Your task to perform on an android device: When is my next appointment? Image 0: 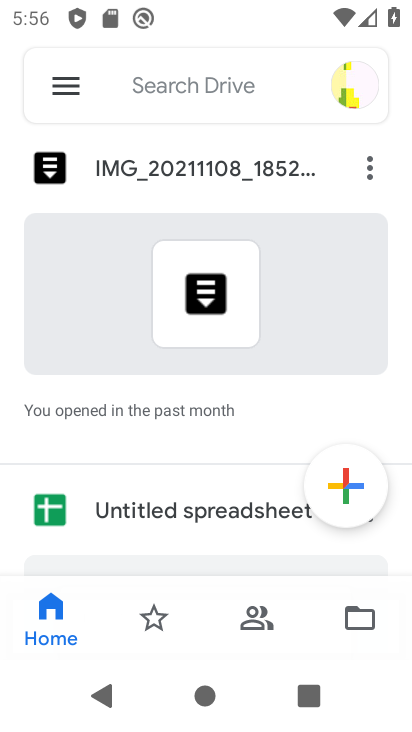
Step 0: press home button
Your task to perform on an android device: When is my next appointment? Image 1: 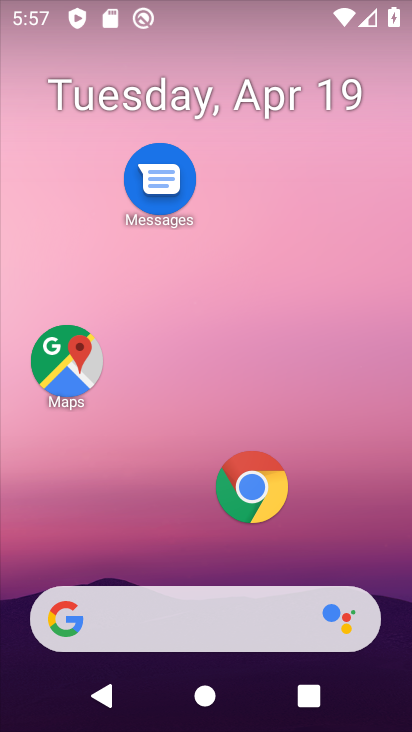
Step 1: drag from (150, 532) to (226, 7)
Your task to perform on an android device: When is my next appointment? Image 2: 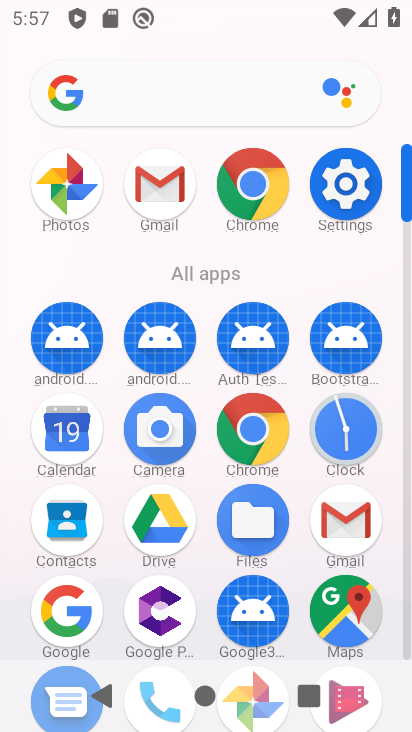
Step 2: click (66, 434)
Your task to perform on an android device: When is my next appointment? Image 3: 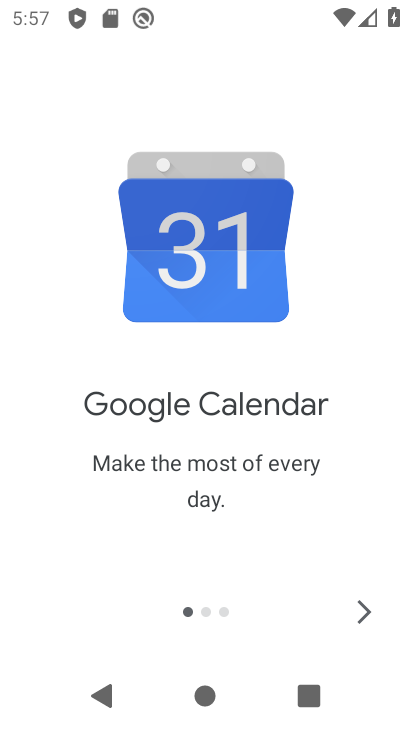
Step 3: click (369, 607)
Your task to perform on an android device: When is my next appointment? Image 4: 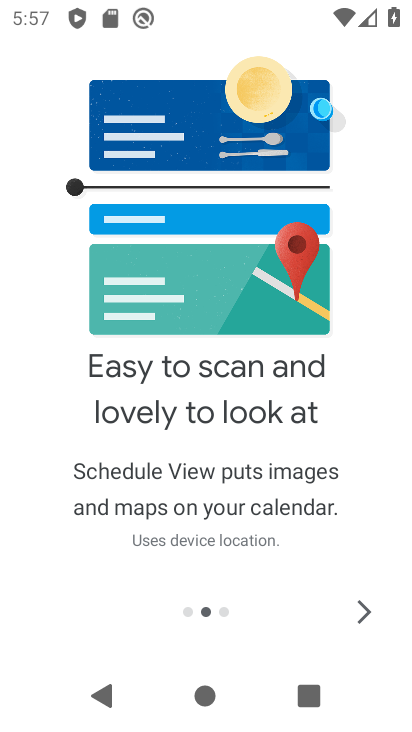
Step 4: click (367, 611)
Your task to perform on an android device: When is my next appointment? Image 5: 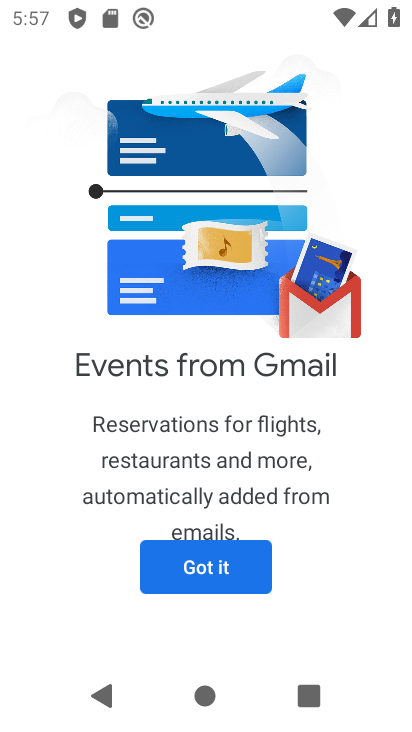
Step 5: click (207, 581)
Your task to perform on an android device: When is my next appointment? Image 6: 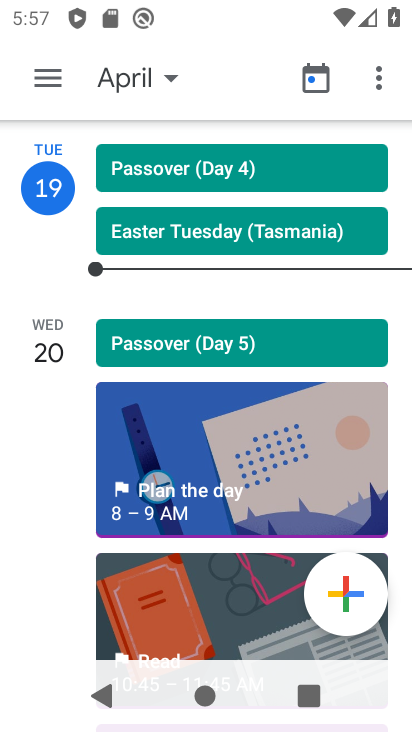
Step 6: click (44, 276)
Your task to perform on an android device: When is my next appointment? Image 7: 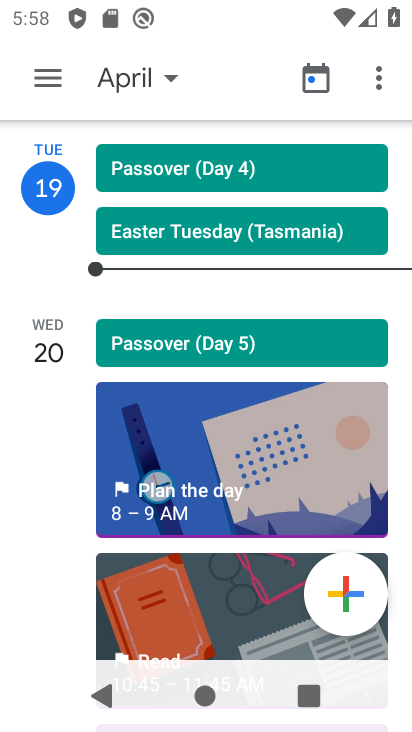
Step 7: drag from (64, 501) to (70, 199)
Your task to perform on an android device: When is my next appointment? Image 8: 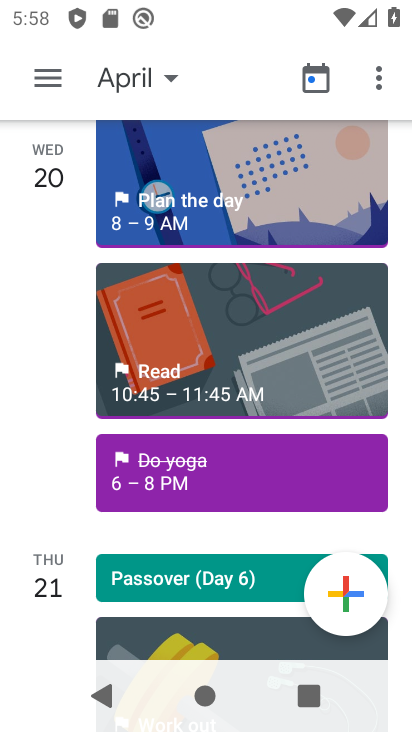
Step 8: click (53, 477)
Your task to perform on an android device: When is my next appointment? Image 9: 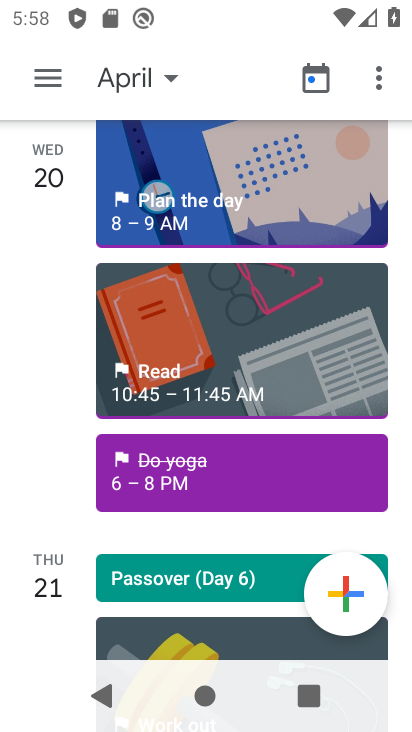
Step 9: click (58, 229)
Your task to perform on an android device: When is my next appointment? Image 10: 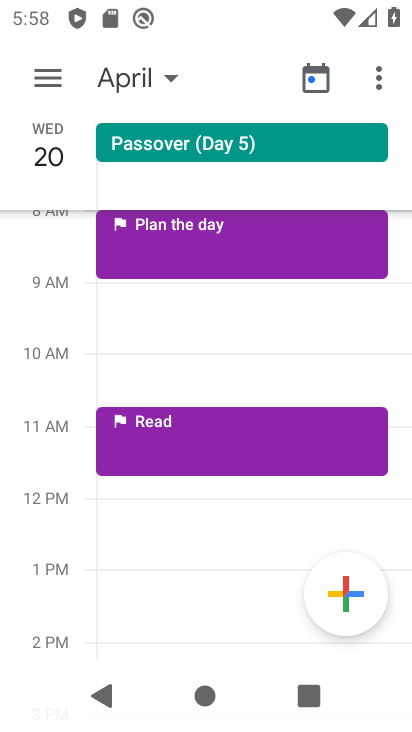
Step 10: task complete